Your task to perform on an android device: create a new album in the google photos Image 0: 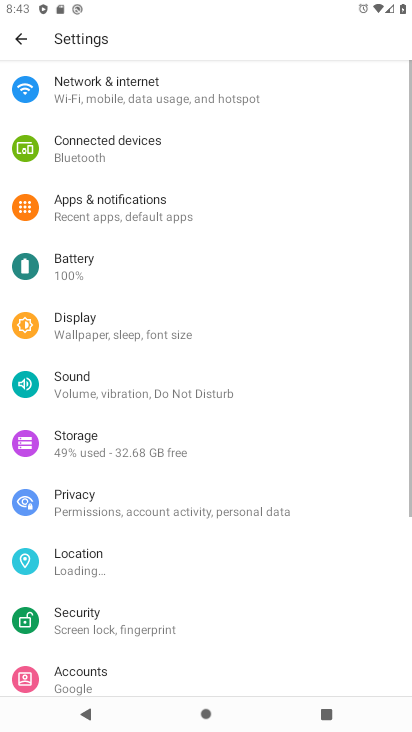
Step 0: press home button
Your task to perform on an android device: create a new album in the google photos Image 1: 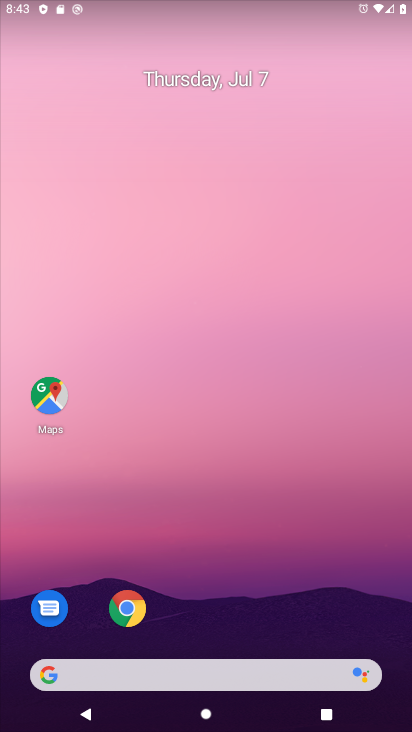
Step 1: drag from (176, 642) to (184, 312)
Your task to perform on an android device: create a new album in the google photos Image 2: 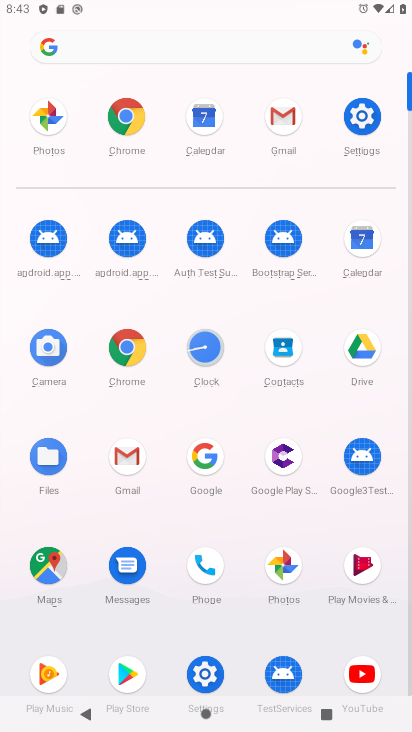
Step 2: click (277, 563)
Your task to perform on an android device: create a new album in the google photos Image 3: 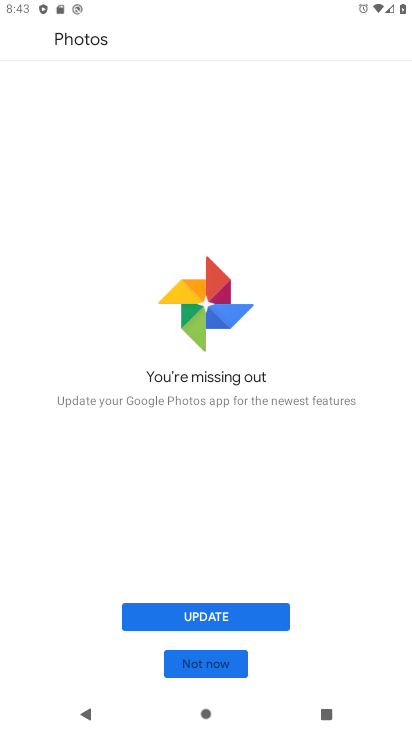
Step 3: click (224, 610)
Your task to perform on an android device: create a new album in the google photos Image 4: 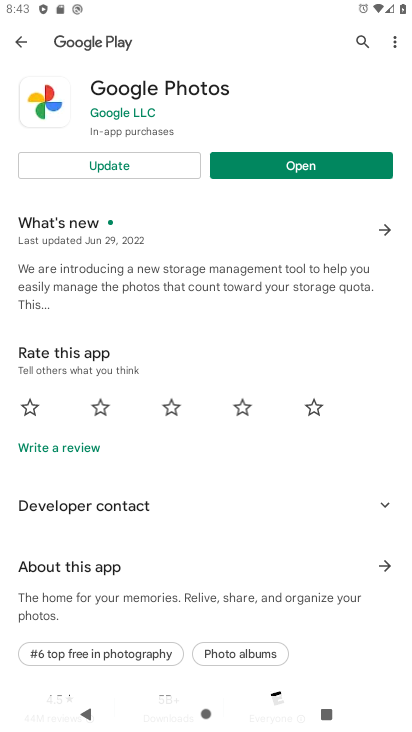
Step 4: click (94, 162)
Your task to perform on an android device: create a new album in the google photos Image 5: 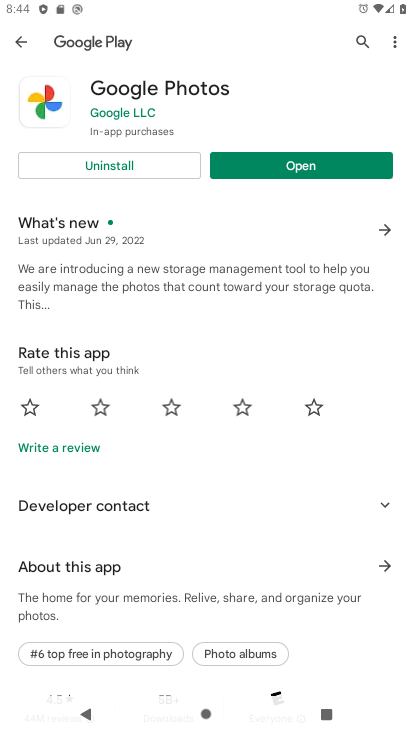
Step 5: click (336, 157)
Your task to perform on an android device: create a new album in the google photos Image 6: 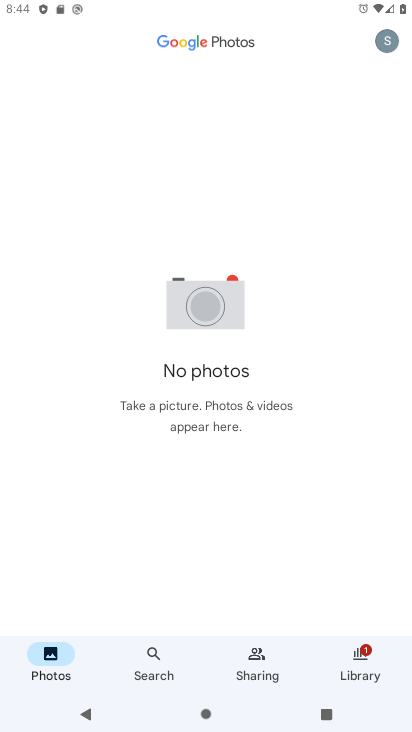
Step 6: drag from (220, 555) to (192, 297)
Your task to perform on an android device: create a new album in the google photos Image 7: 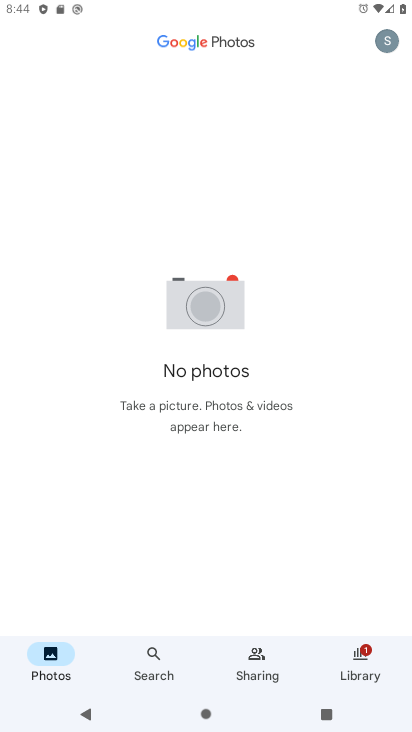
Step 7: click (251, 663)
Your task to perform on an android device: create a new album in the google photos Image 8: 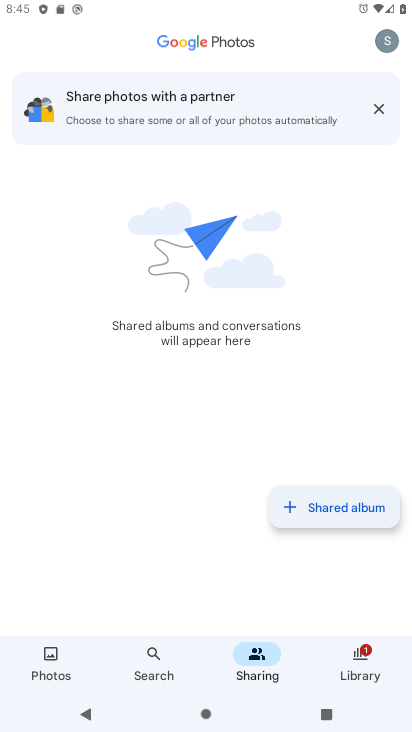
Step 8: click (152, 662)
Your task to perform on an android device: create a new album in the google photos Image 9: 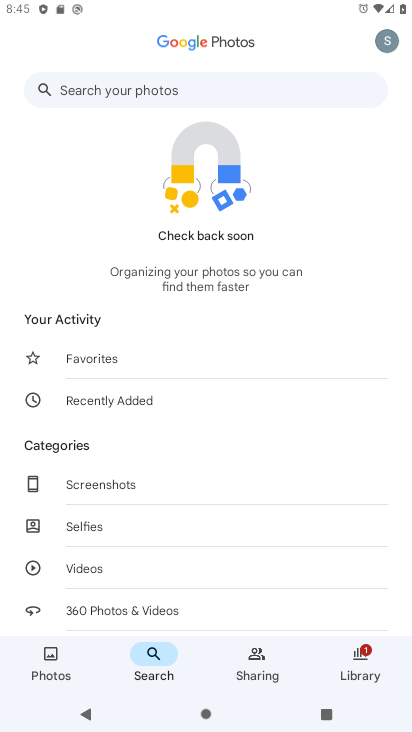
Step 9: click (355, 664)
Your task to perform on an android device: create a new album in the google photos Image 10: 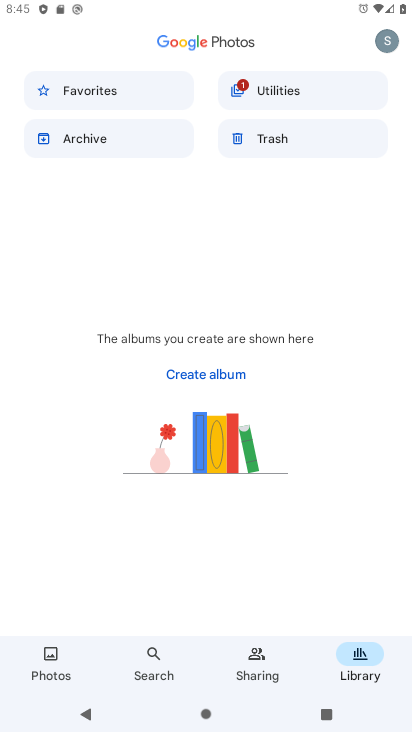
Step 10: click (202, 375)
Your task to perform on an android device: create a new album in the google photos Image 11: 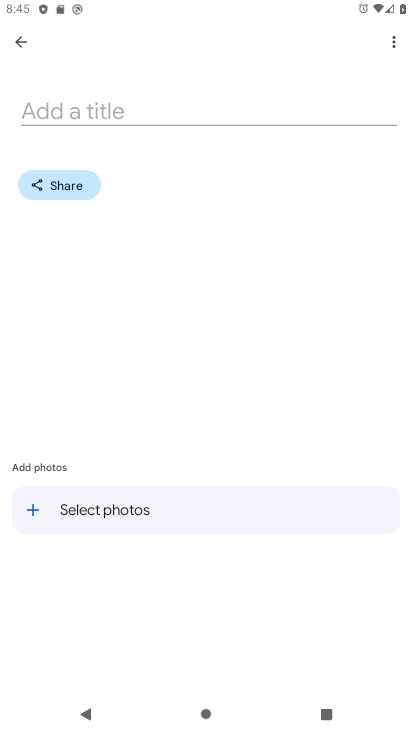
Step 11: click (68, 509)
Your task to perform on an android device: create a new album in the google photos Image 12: 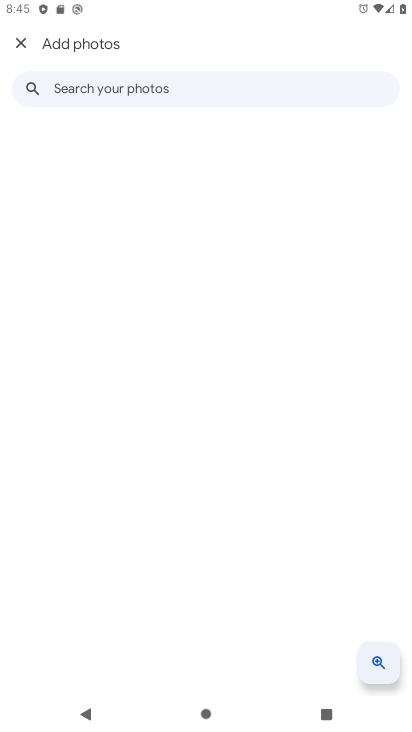
Step 12: task complete